Your task to perform on an android device: Open network settings Image 0: 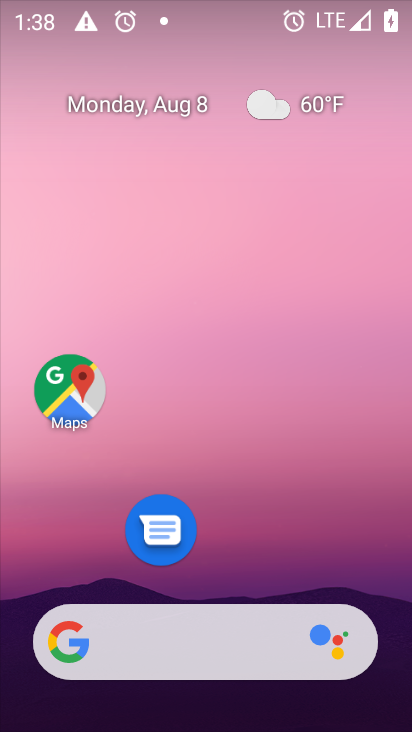
Step 0: drag from (232, 590) to (260, 29)
Your task to perform on an android device: Open network settings Image 1: 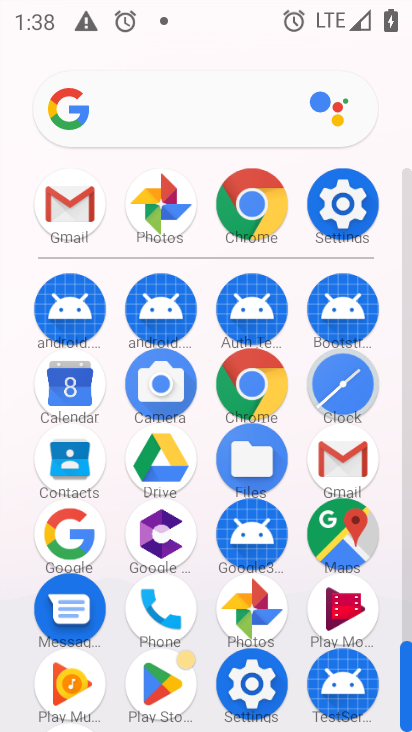
Step 1: click (345, 194)
Your task to perform on an android device: Open network settings Image 2: 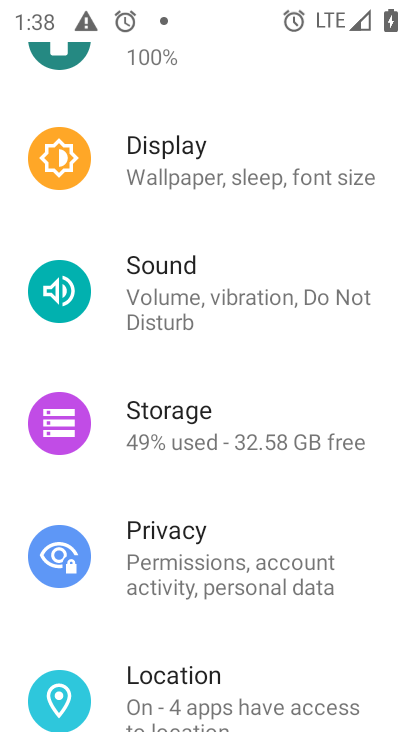
Step 2: drag from (206, 126) to (243, 606)
Your task to perform on an android device: Open network settings Image 3: 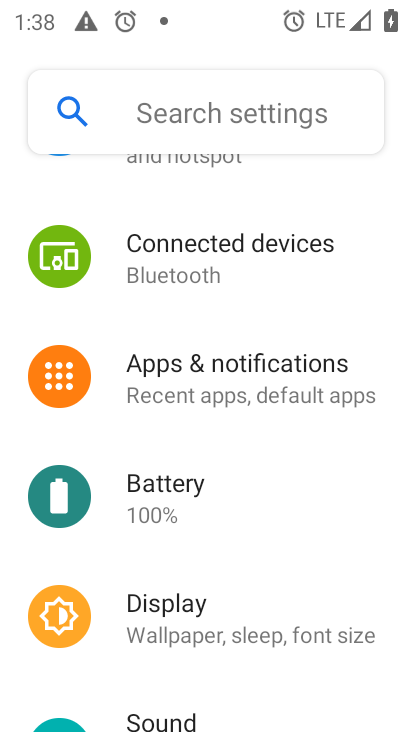
Step 3: drag from (203, 226) to (222, 538)
Your task to perform on an android device: Open network settings Image 4: 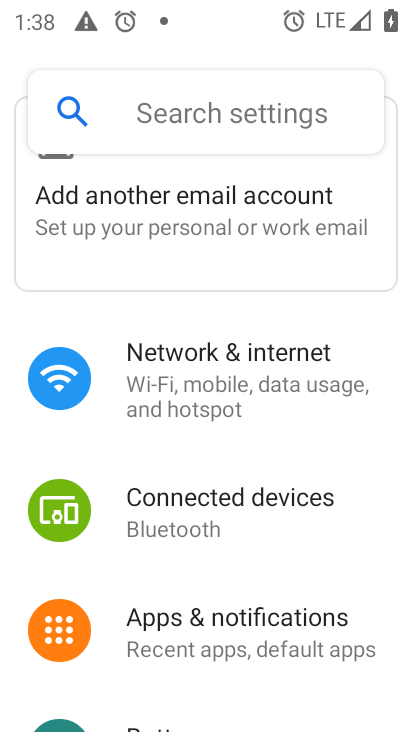
Step 4: click (192, 382)
Your task to perform on an android device: Open network settings Image 5: 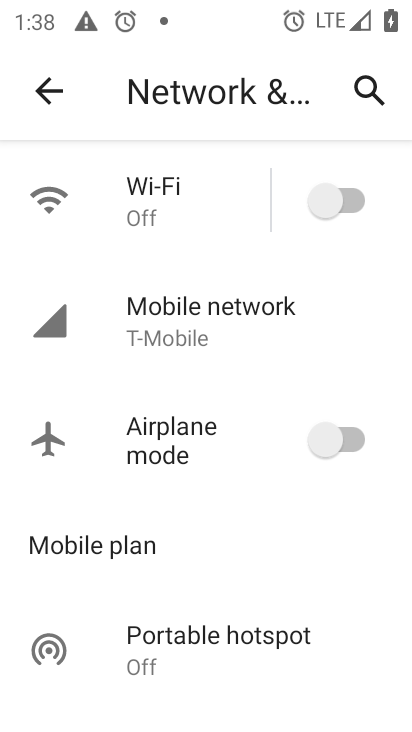
Step 5: click (167, 311)
Your task to perform on an android device: Open network settings Image 6: 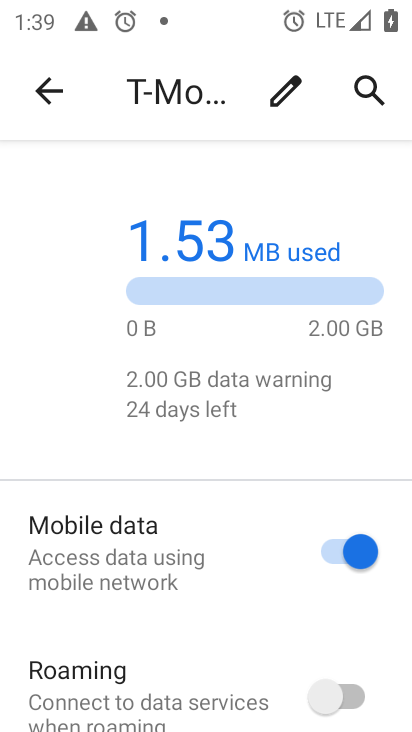
Step 6: task complete